Your task to perform on an android device: turn off translation in the chrome app Image 0: 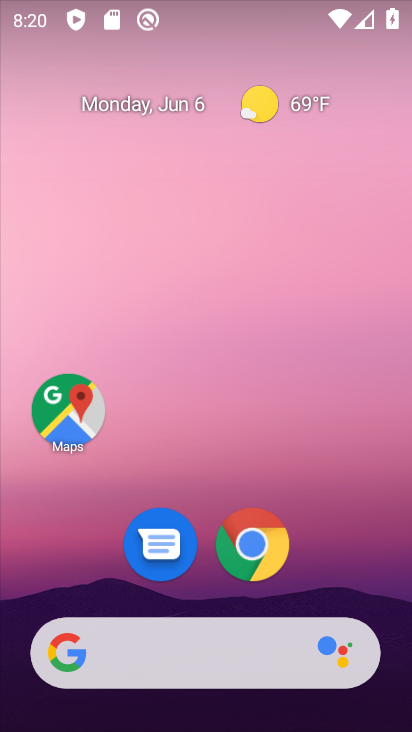
Step 0: drag from (211, 590) to (270, 190)
Your task to perform on an android device: turn off translation in the chrome app Image 1: 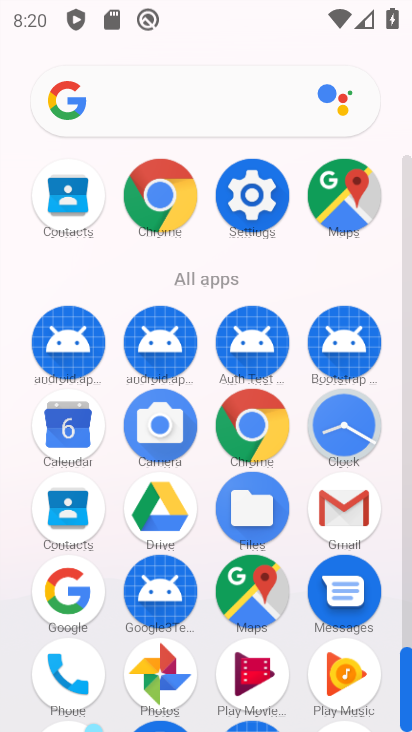
Step 1: click (163, 193)
Your task to perform on an android device: turn off translation in the chrome app Image 2: 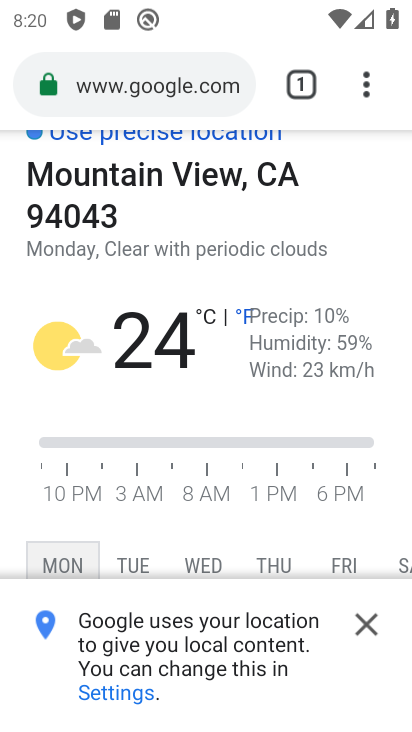
Step 2: click (371, 83)
Your task to perform on an android device: turn off translation in the chrome app Image 3: 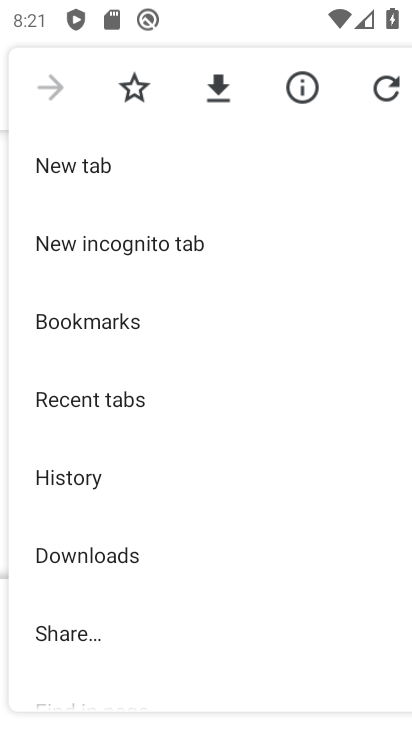
Step 3: drag from (207, 587) to (232, 259)
Your task to perform on an android device: turn off translation in the chrome app Image 4: 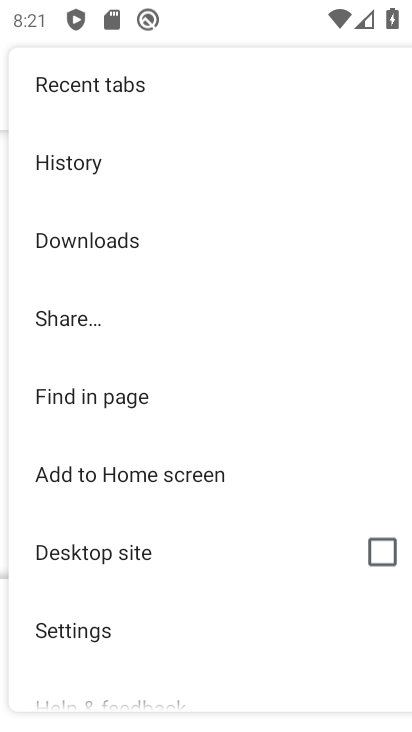
Step 4: click (92, 616)
Your task to perform on an android device: turn off translation in the chrome app Image 5: 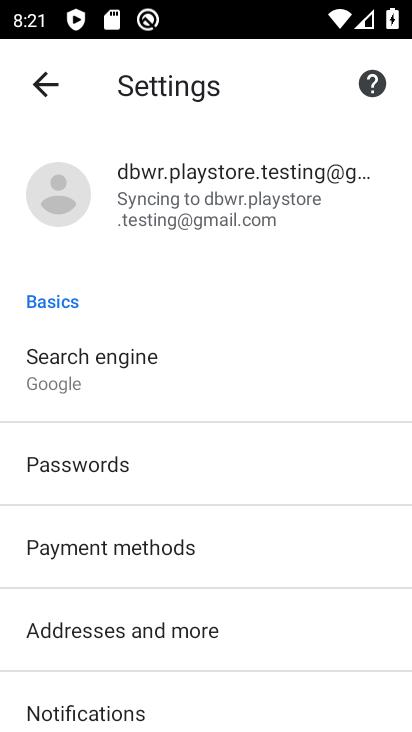
Step 5: drag from (117, 585) to (201, 173)
Your task to perform on an android device: turn off translation in the chrome app Image 6: 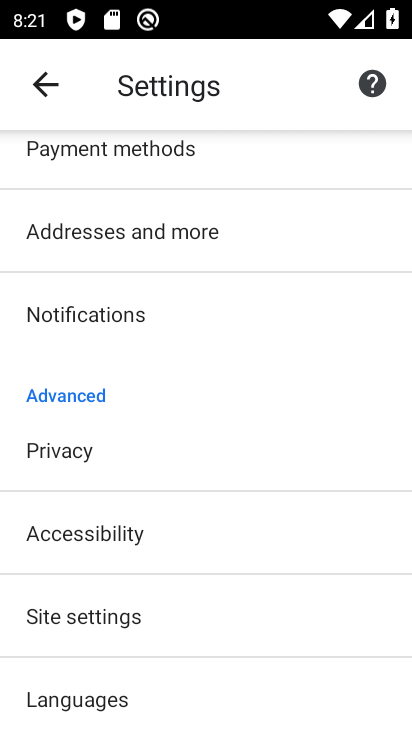
Step 6: drag from (121, 664) to (174, 343)
Your task to perform on an android device: turn off translation in the chrome app Image 7: 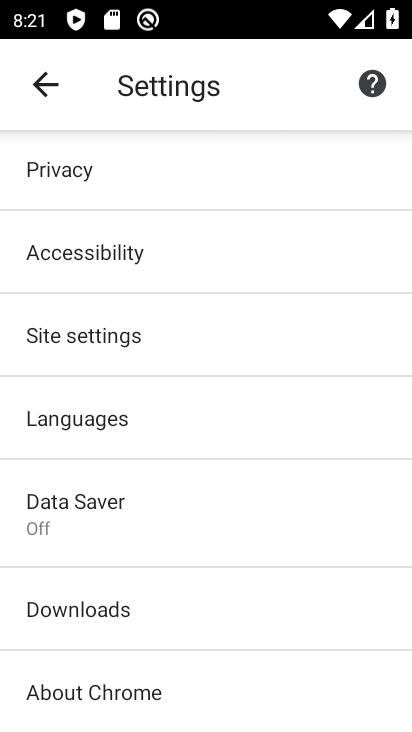
Step 7: click (101, 422)
Your task to perform on an android device: turn off translation in the chrome app Image 8: 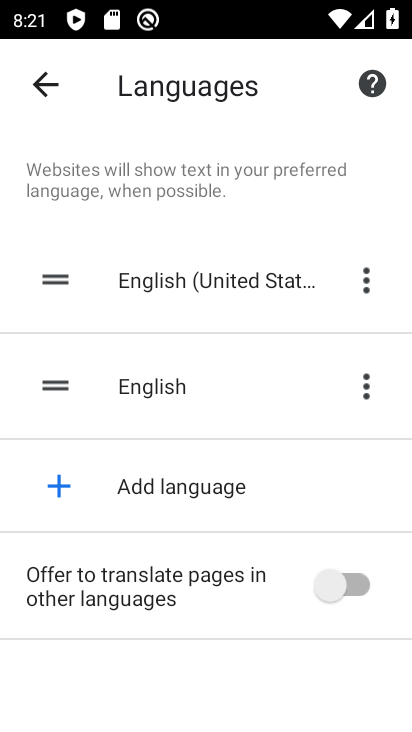
Step 8: task complete